Your task to perform on an android device: Open calendar and show me the third week of next month Image 0: 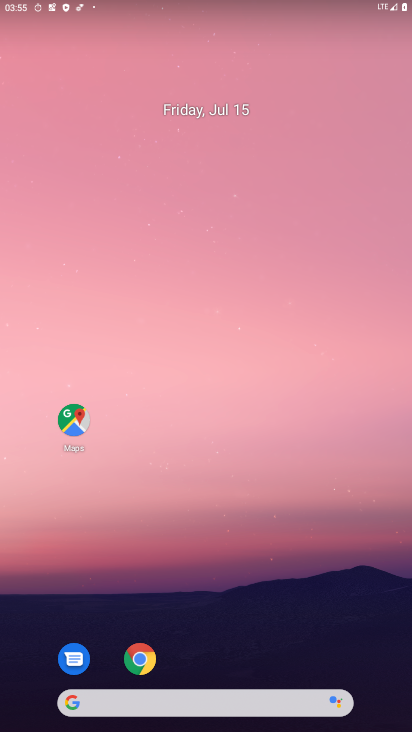
Step 0: drag from (276, 637) to (334, 157)
Your task to perform on an android device: Open calendar and show me the third week of next month Image 1: 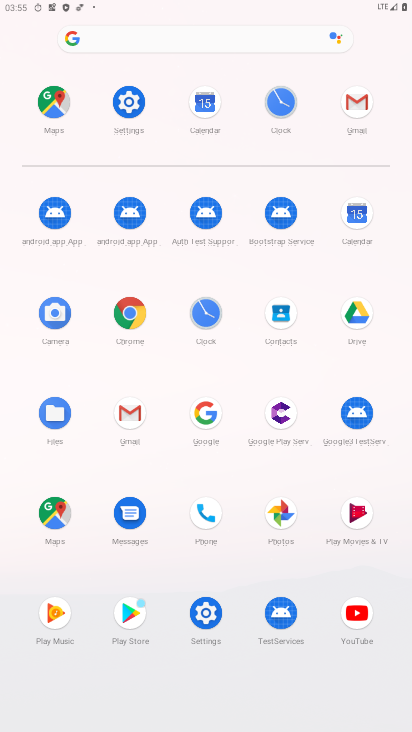
Step 1: click (355, 205)
Your task to perform on an android device: Open calendar and show me the third week of next month Image 2: 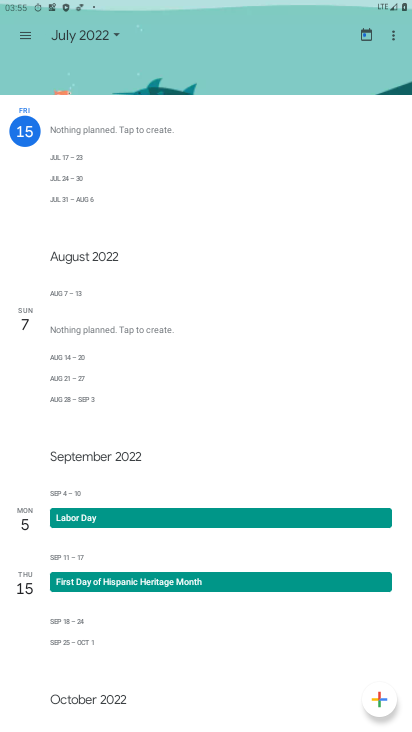
Step 2: click (78, 33)
Your task to perform on an android device: Open calendar and show me the third week of next month Image 3: 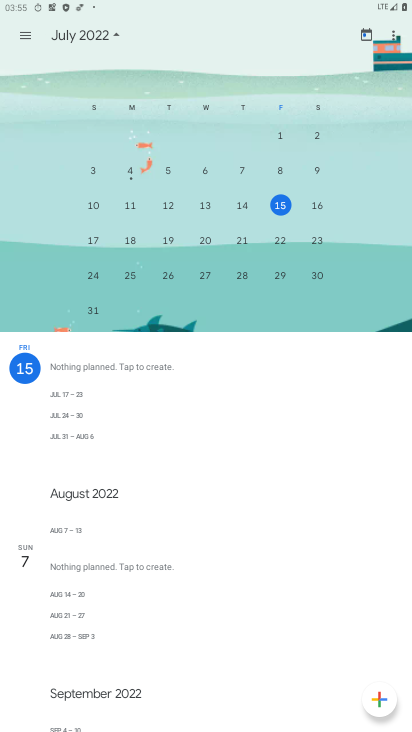
Step 3: drag from (350, 217) to (0, 217)
Your task to perform on an android device: Open calendar and show me the third week of next month Image 4: 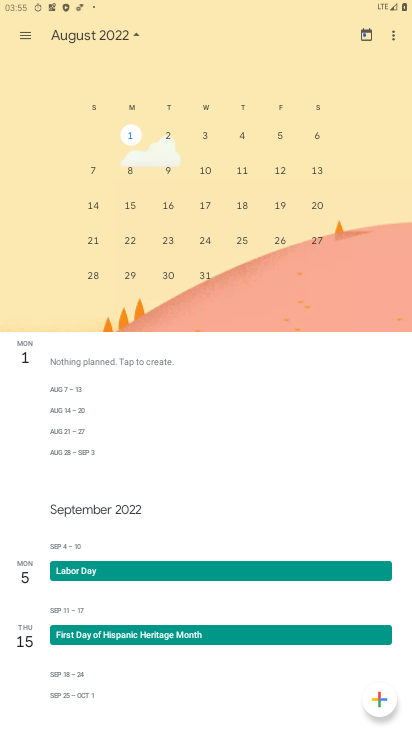
Step 4: click (93, 212)
Your task to perform on an android device: Open calendar and show me the third week of next month Image 5: 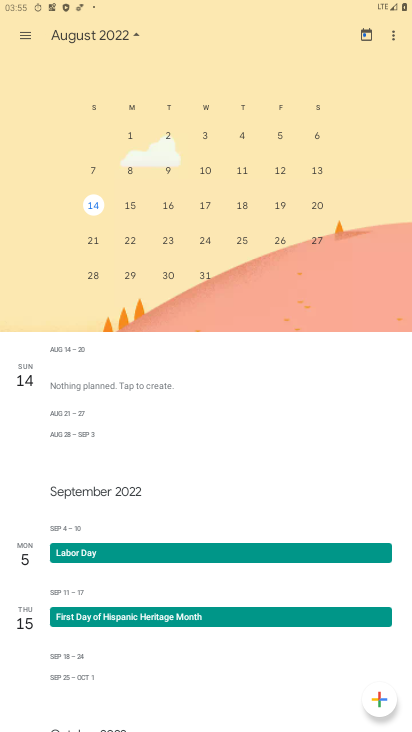
Step 5: task complete